Your task to perform on an android device: open a bookmark in the chrome app Image 0: 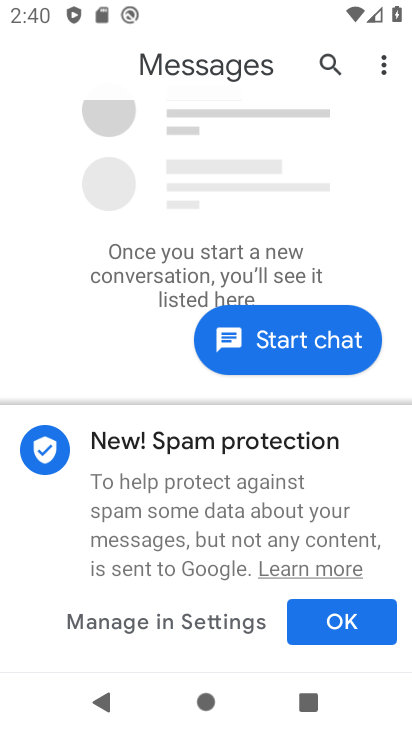
Step 0: press home button
Your task to perform on an android device: open a bookmark in the chrome app Image 1: 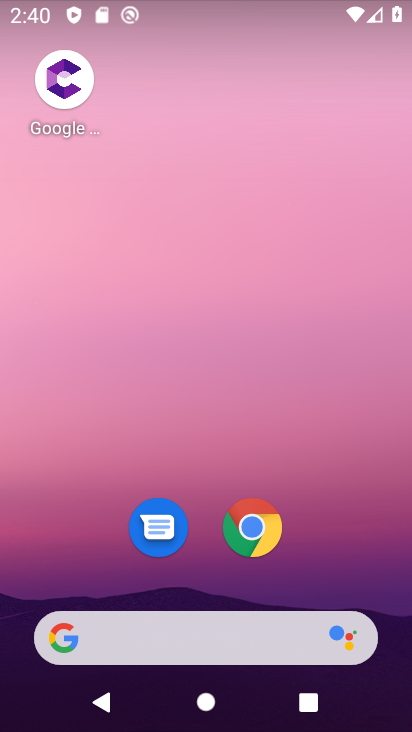
Step 1: click (250, 519)
Your task to perform on an android device: open a bookmark in the chrome app Image 2: 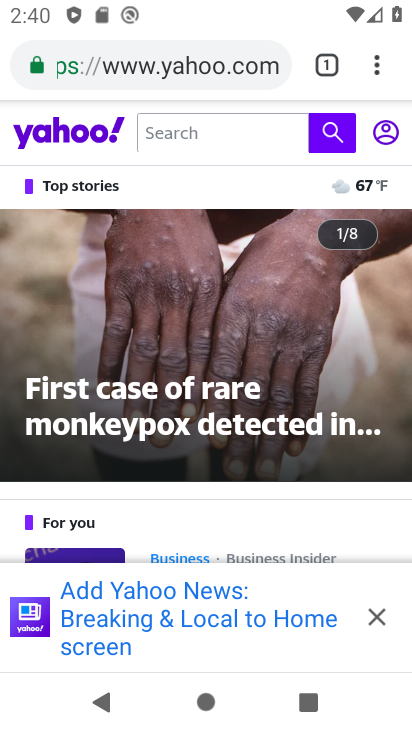
Step 2: click (379, 68)
Your task to perform on an android device: open a bookmark in the chrome app Image 3: 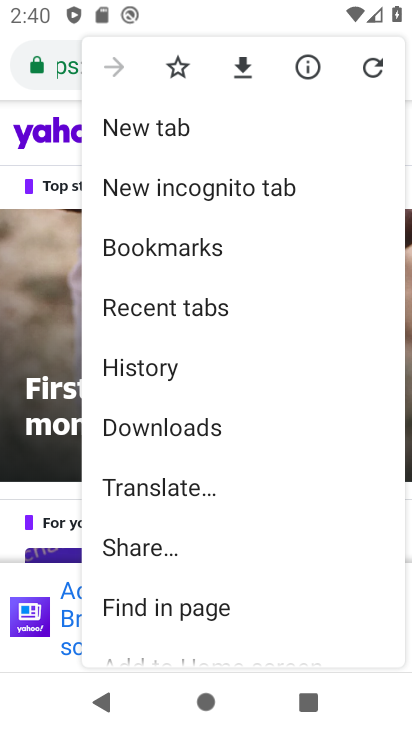
Step 3: click (217, 255)
Your task to perform on an android device: open a bookmark in the chrome app Image 4: 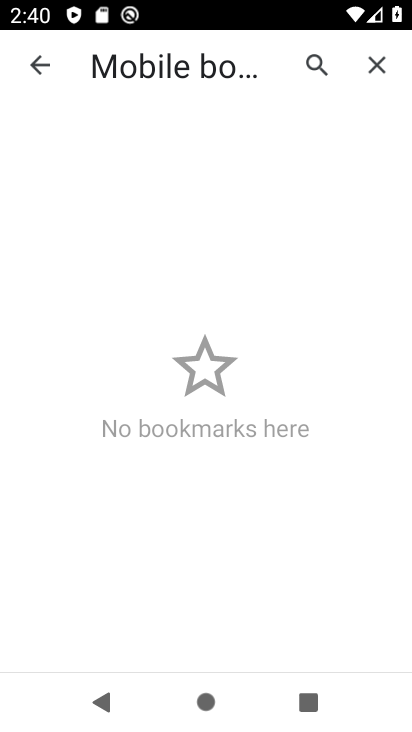
Step 4: task complete